Your task to perform on an android device: change your default location settings in chrome Image 0: 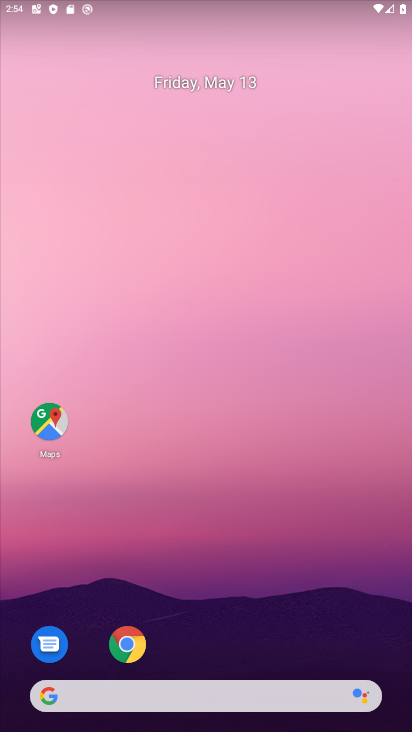
Step 0: drag from (211, 631) to (224, 247)
Your task to perform on an android device: change your default location settings in chrome Image 1: 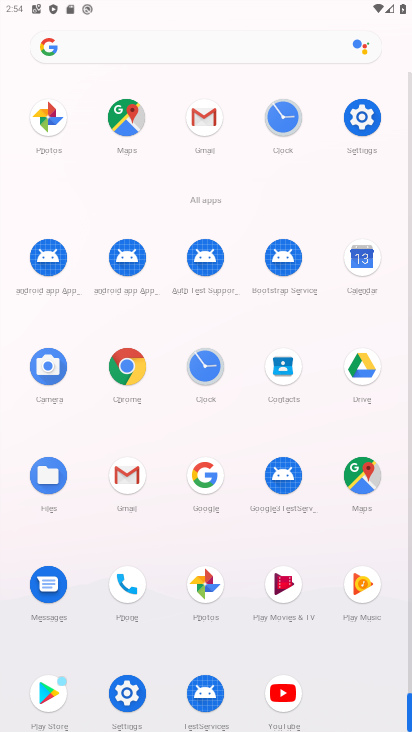
Step 1: click (131, 396)
Your task to perform on an android device: change your default location settings in chrome Image 2: 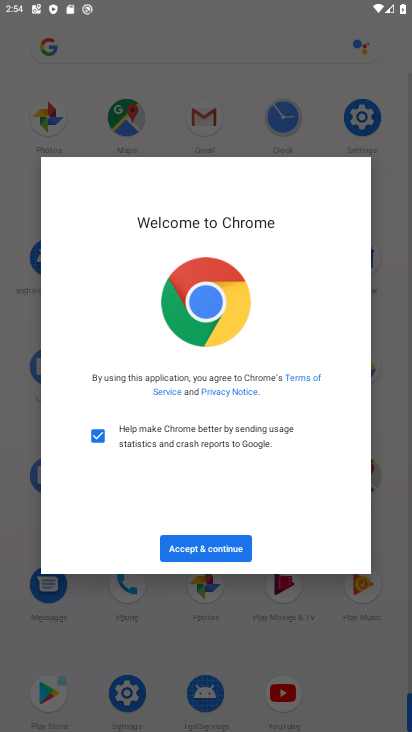
Step 2: click (203, 547)
Your task to perform on an android device: change your default location settings in chrome Image 3: 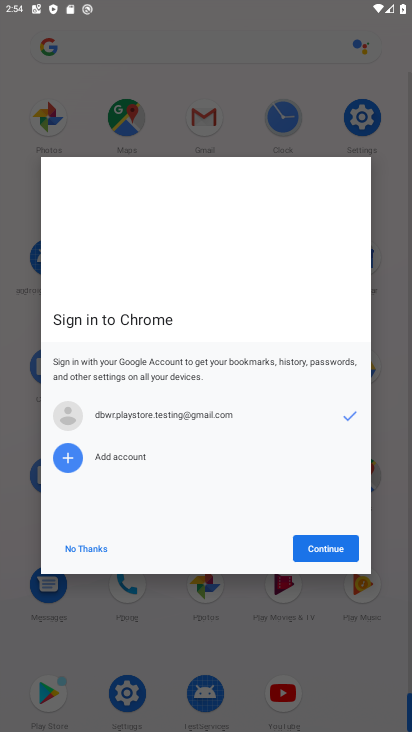
Step 3: click (313, 547)
Your task to perform on an android device: change your default location settings in chrome Image 4: 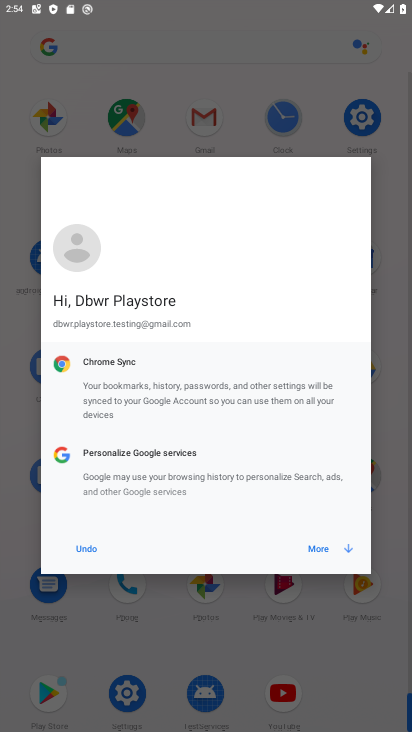
Step 4: click (322, 549)
Your task to perform on an android device: change your default location settings in chrome Image 5: 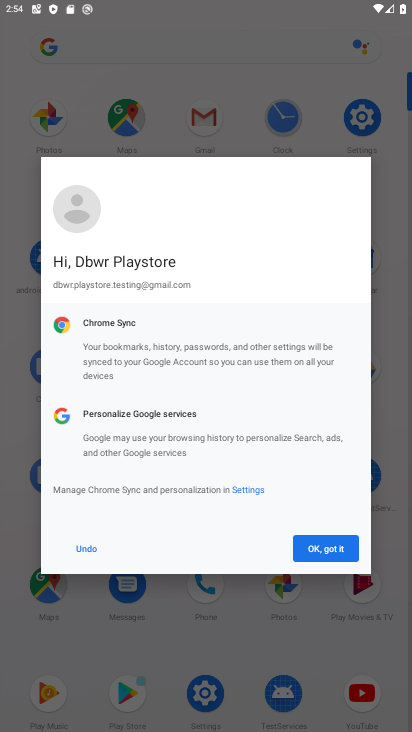
Step 5: click (313, 549)
Your task to perform on an android device: change your default location settings in chrome Image 6: 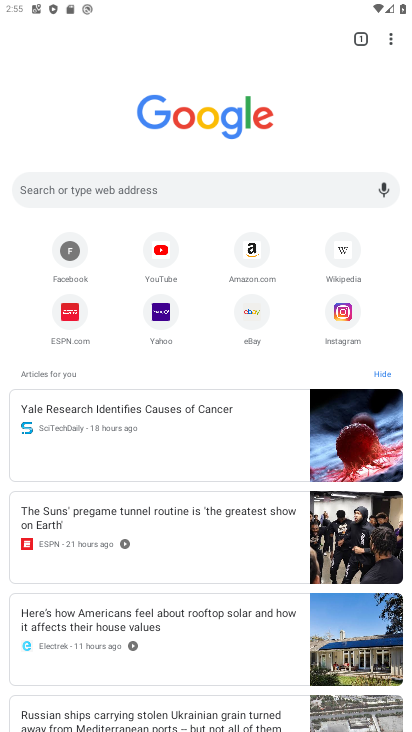
Step 6: drag from (339, 160) to (291, 287)
Your task to perform on an android device: change your default location settings in chrome Image 7: 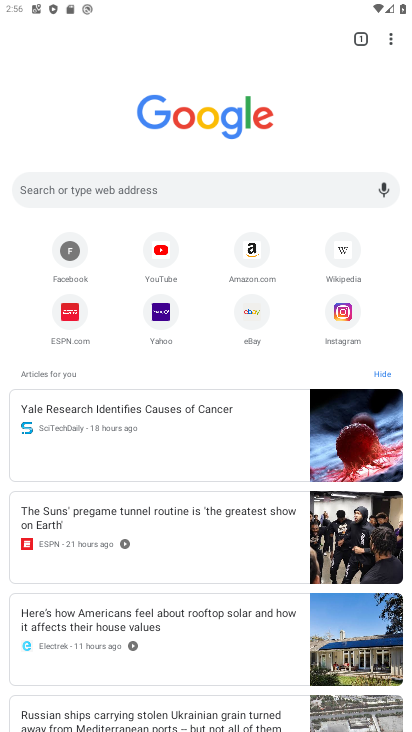
Step 7: click (395, 39)
Your task to perform on an android device: change your default location settings in chrome Image 8: 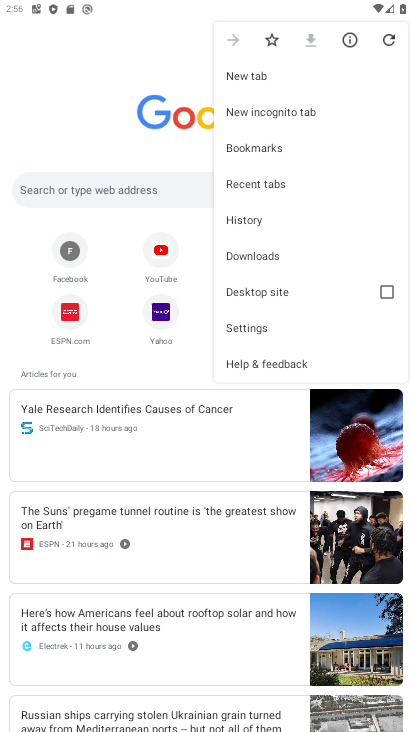
Step 8: click (257, 345)
Your task to perform on an android device: change your default location settings in chrome Image 9: 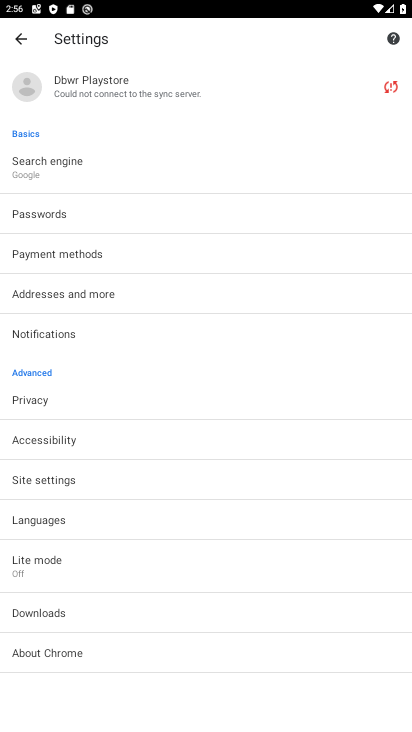
Step 9: click (52, 483)
Your task to perform on an android device: change your default location settings in chrome Image 10: 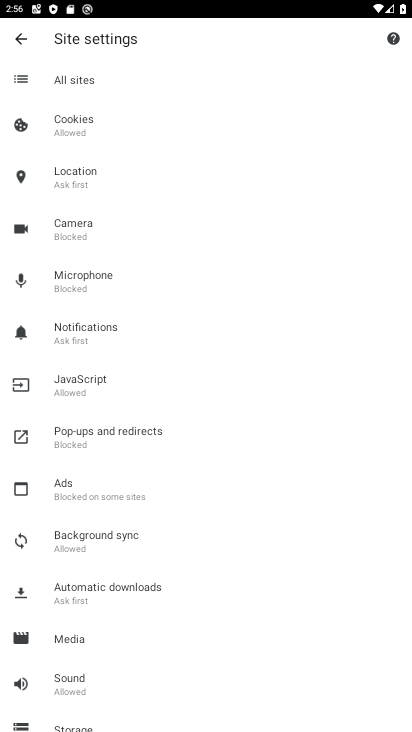
Step 10: click (73, 181)
Your task to perform on an android device: change your default location settings in chrome Image 11: 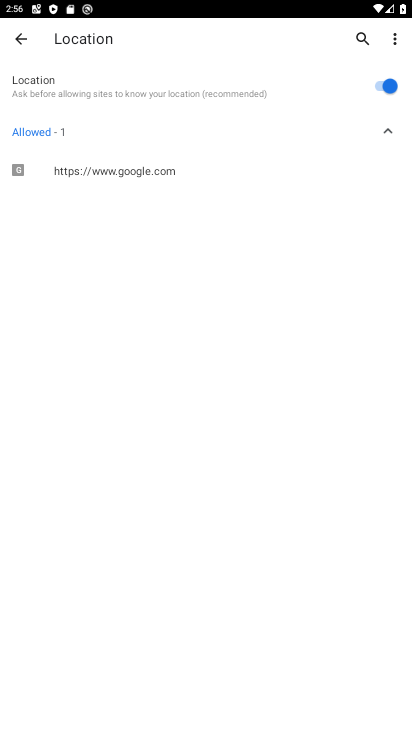
Step 11: click (386, 81)
Your task to perform on an android device: change your default location settings in chrome Image 12: 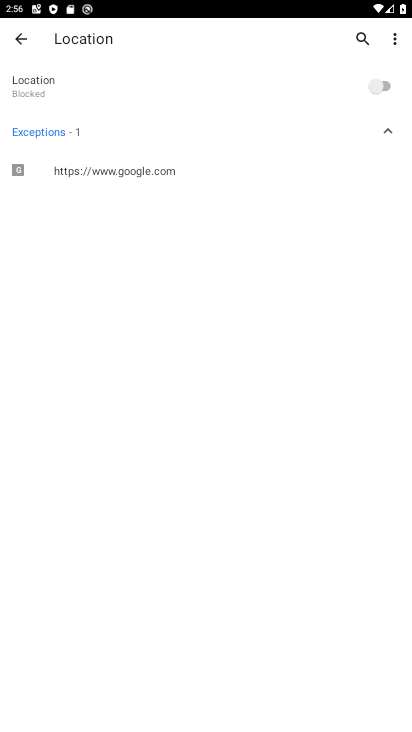
Step 12: task complete